Your task to perform on an android device: Open Android settings Image 0: 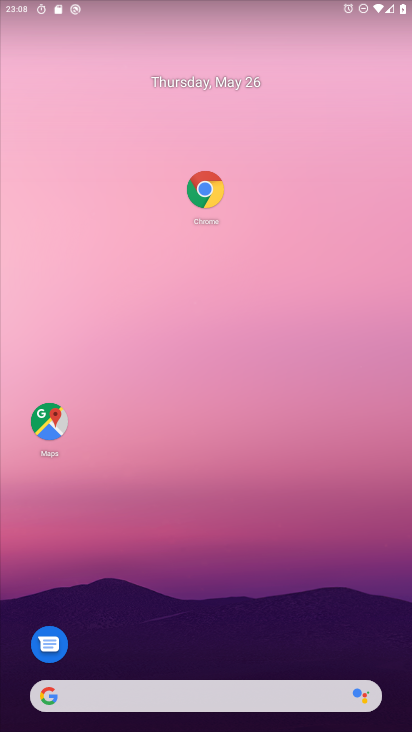
Step 0: drag from (260, 568) to (336, 249)
Your task to perform on an android device: Open Android settings Image 1: 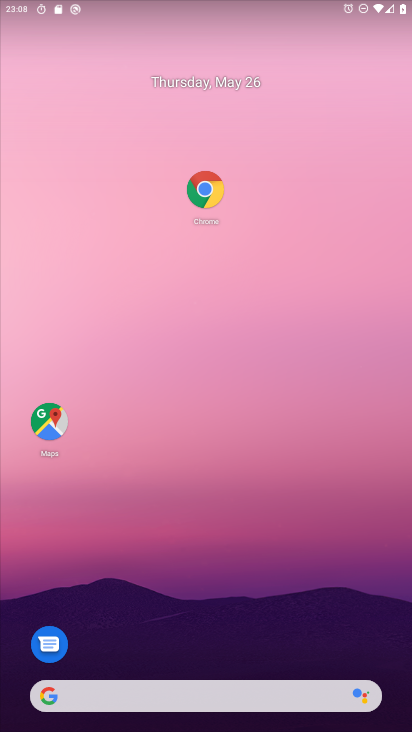
Step 1: drag from (239, 610) to (246, 106)
Your task to perform on an android device: Open Android settings Image 2: 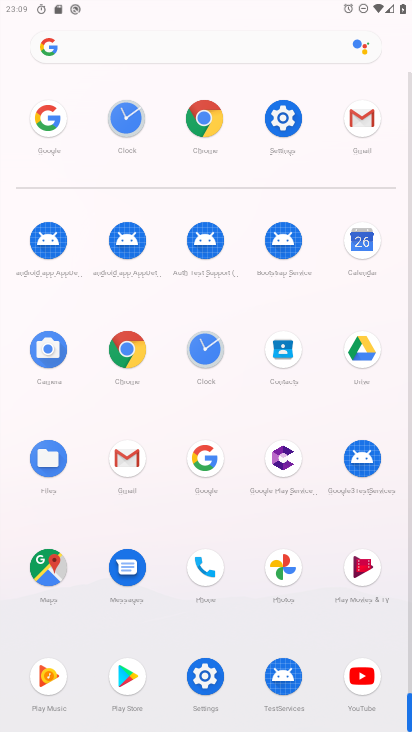
Step 2: click (275, 131)
Your task to perform on an android device: Open Android settings Image 3: 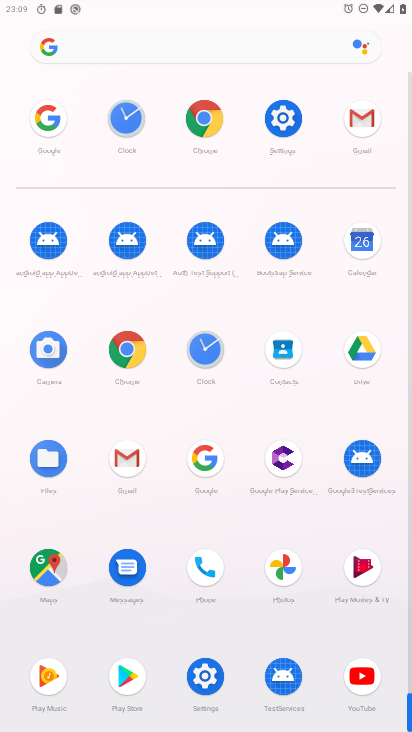
Step 3: click (275, 131)
Your task to perform on an android device: Open Android settings Image 4: 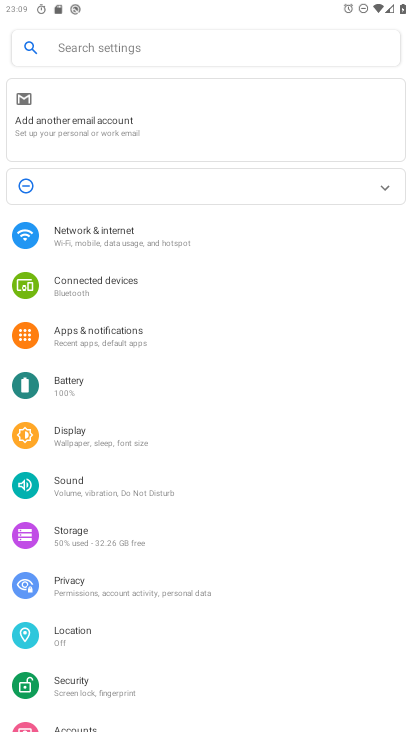
Step 4: drag from (133, 598) to (164, 213)
Your task to perform on an android device: Open Android settings Image 5: 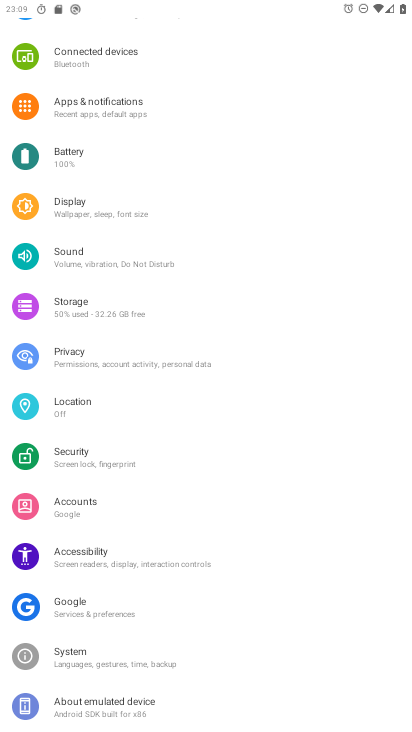
Step 5: click (113, 705)
Your task to perform on an android device: Open Android settings Image 6: 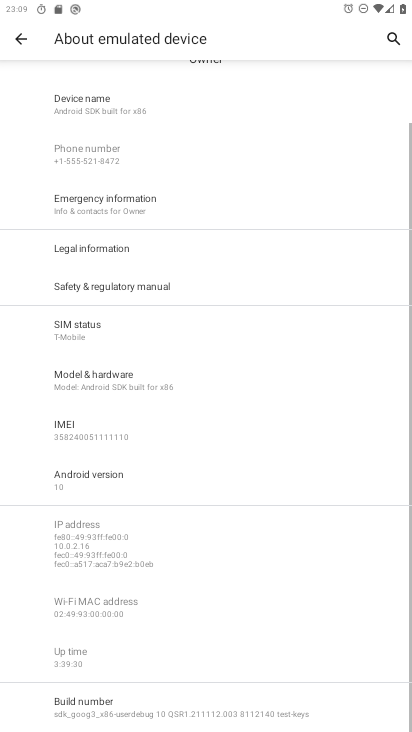
Step 6: click (107, 478)
Your task to perform on an android device: Open Android settings Image 7: 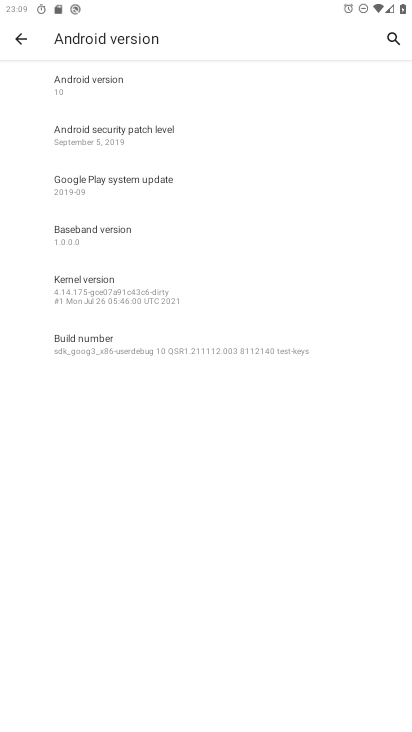
Step 7: task complete